Your task to perform on an android device: remove spam from my inbox in the gmail app Image 0: 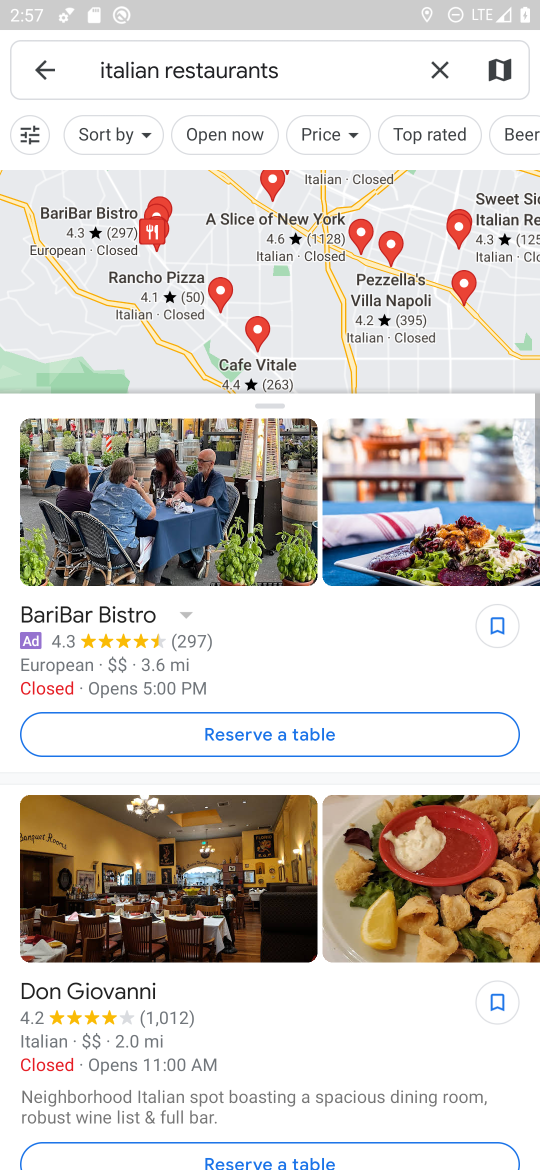
Step 0: press home button
Your task to perform on an android device: remove spam from my inbox in the gmail app Image 1: 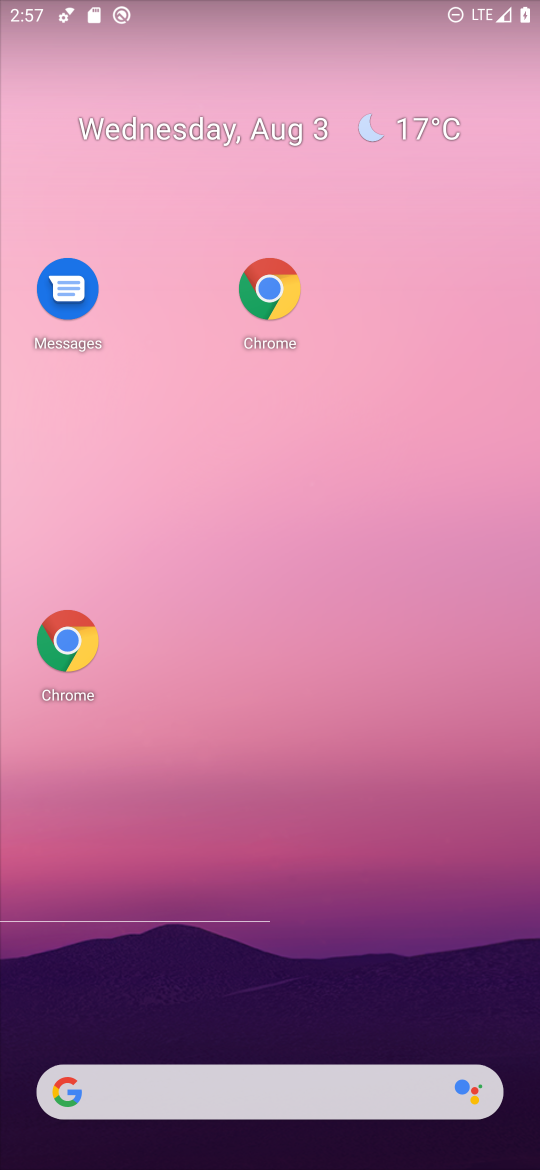
Step 1: drag from (436, 985) to (366, 201)
Your task to perform on an android device: remove spam from my inbox in the gmail app Image 2: 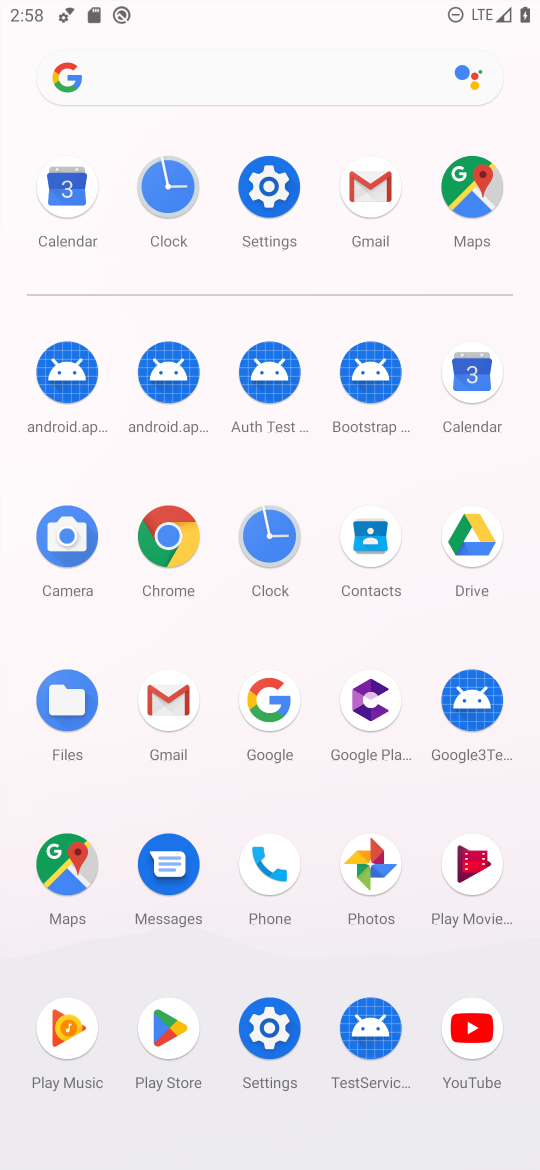
Step 2: click (363, 224)
Your task to perform on an android device: remove spam from my inbox in the gmail app Image 3: 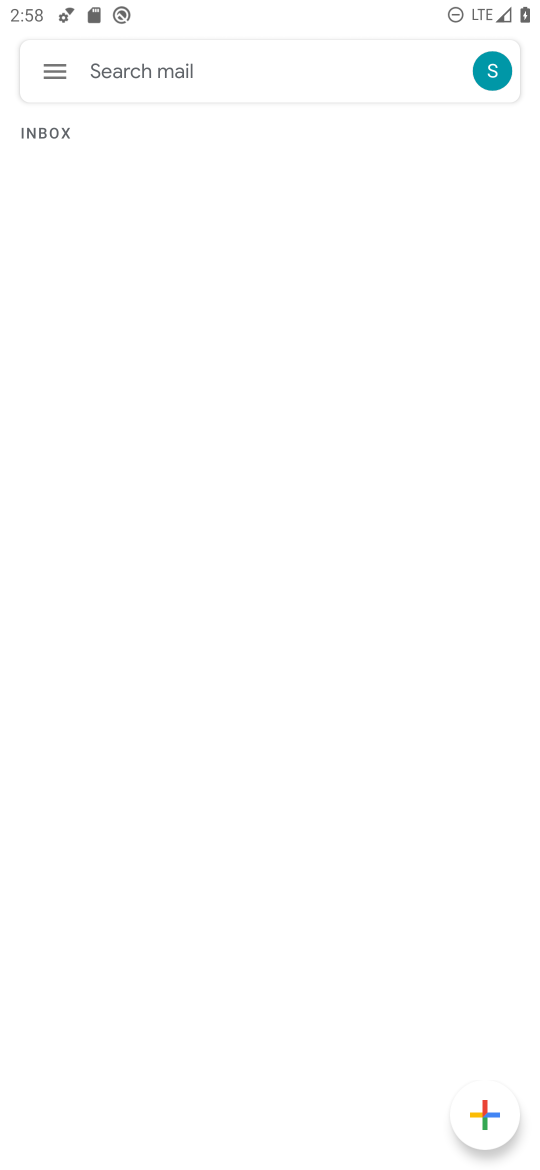
Step 3: click (69, 88)
Your task to perform on an android device: remove spam from my inbox in the gmail app Image 4: 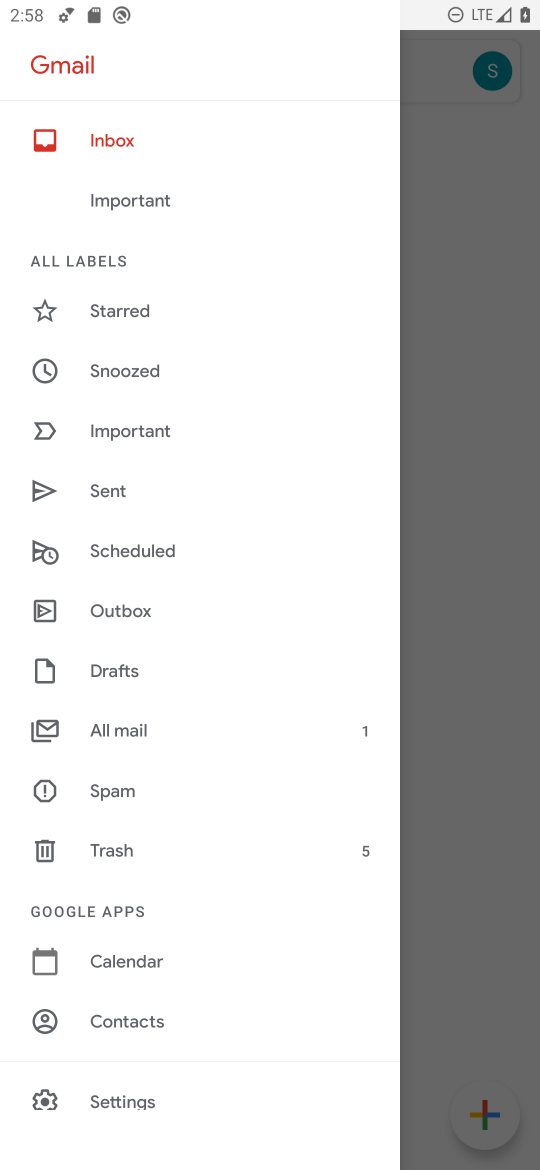
Step 4: click (148, 797)
Your task to perform on an android device: remove spam from my inbox in the gmail app Image 5: 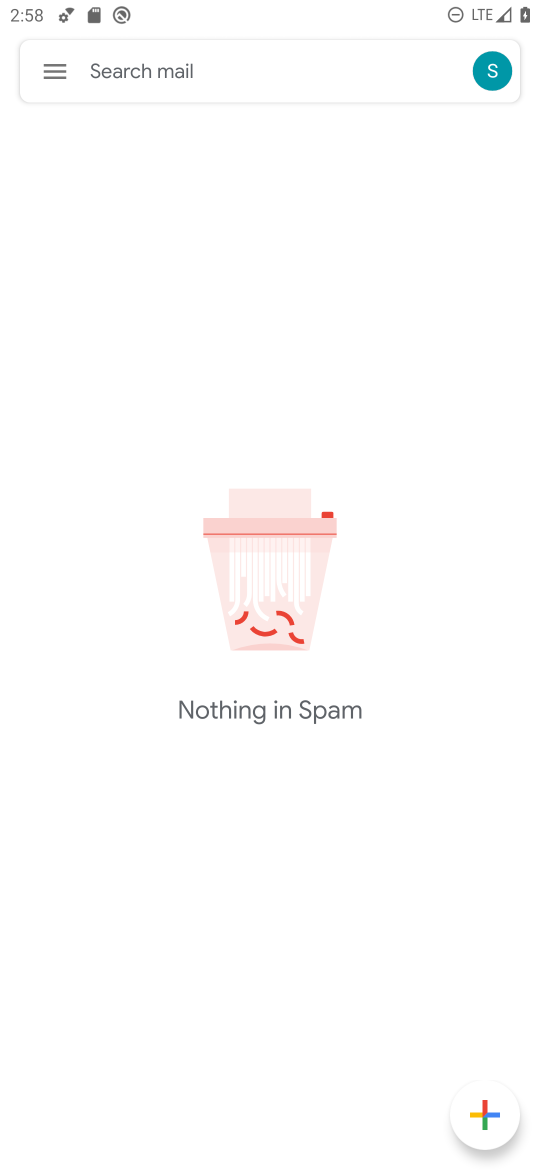
Step 5: task complete